Your task to perform on an android device: toggle improve location accuracy Image 0: 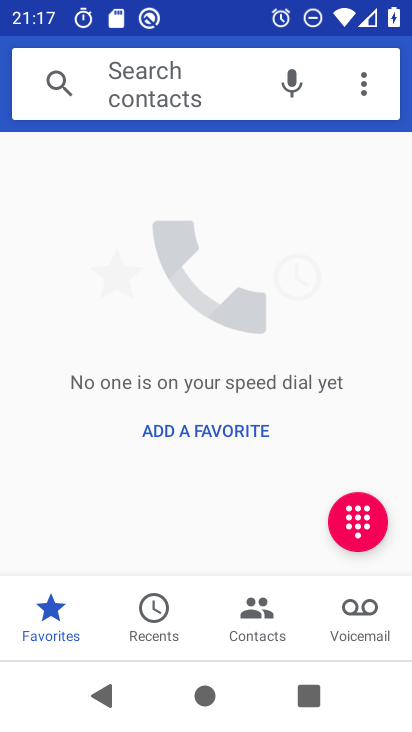
Step 0: press home button
Your task to perform on an android device: toggle improve location accuracy Image 1: 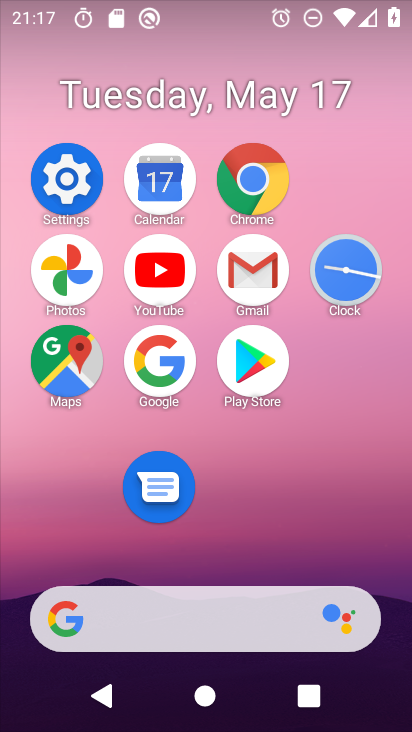
Step 1: click (60, 192)
Your task to perform on an android device: toggle improve location accuracy Image 2: 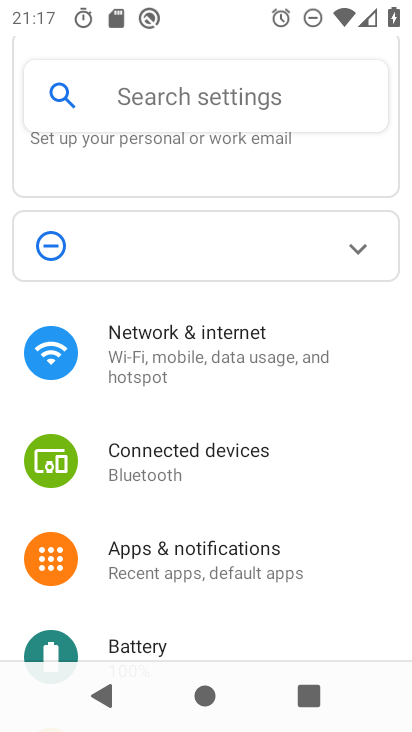
Step 2: drag from (208, 595) to (255, 252)
Your task to perform on an android device: toggle improve location accuracy Image 3: 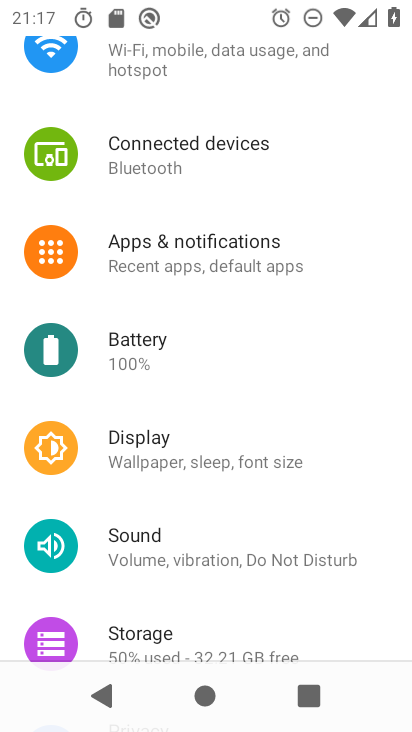
Step 3: drag from (225, 560) to (225, 255)
Your task to perform on an android device: toggle improve location accuracy Image 4: 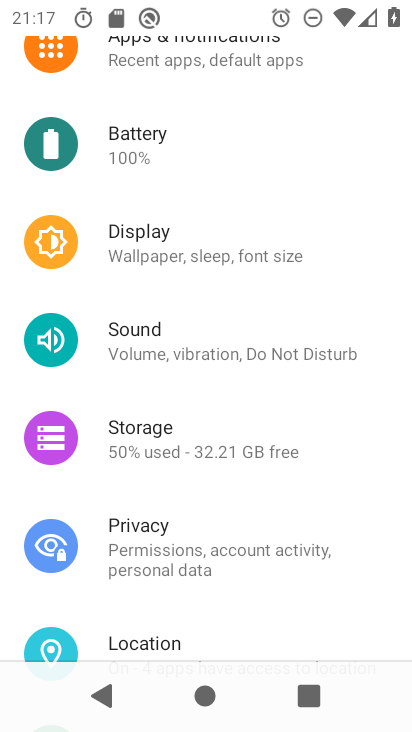
Step 4: drag from (222, 603) to (276, 259)
Your task to perform on an android device: toggle improve location accuracy Image 5: 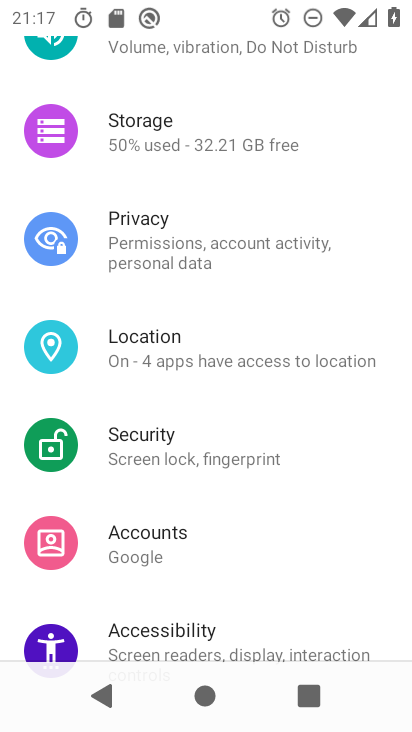
Step 5: click (216, 346)
Your task to perform on an android device: toggle improve location accuracy Image 6: 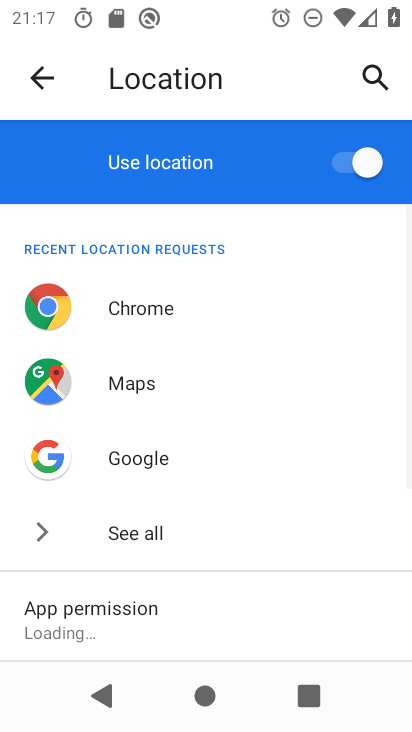
Step 6: drag from (204, 546) to (236, 155)
Your task to perform on an android device: toggle improve location accuracy Image 7: 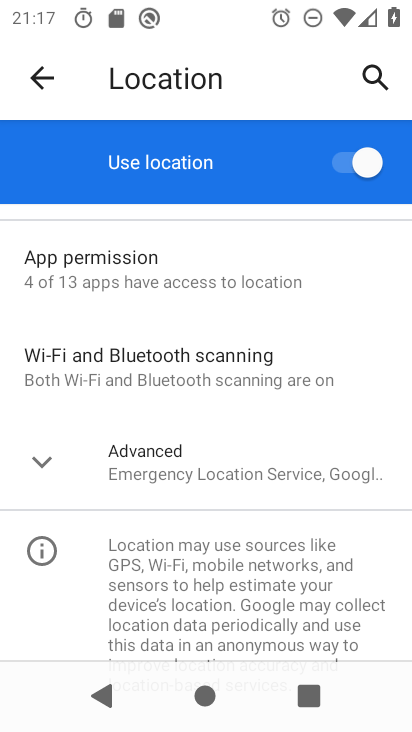
Step 7: click (174, 478)
Your task to perform on an android device: toggle improve location accuracy Image 8: 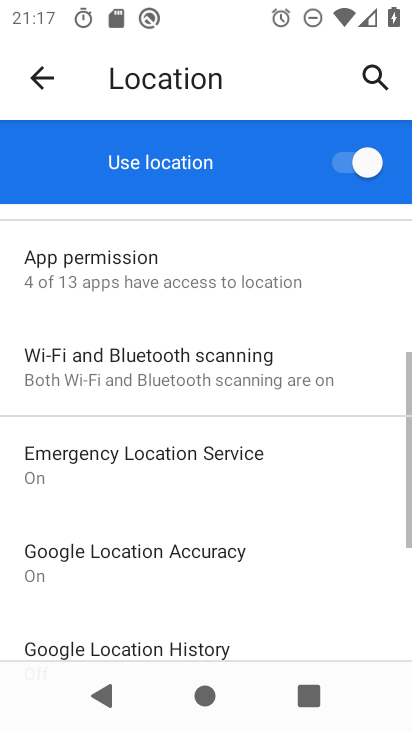
Step 8: drag from (174, 478) to (209, 183)
Your task to perform on an android device: toggle improve location accuracy Image 9: 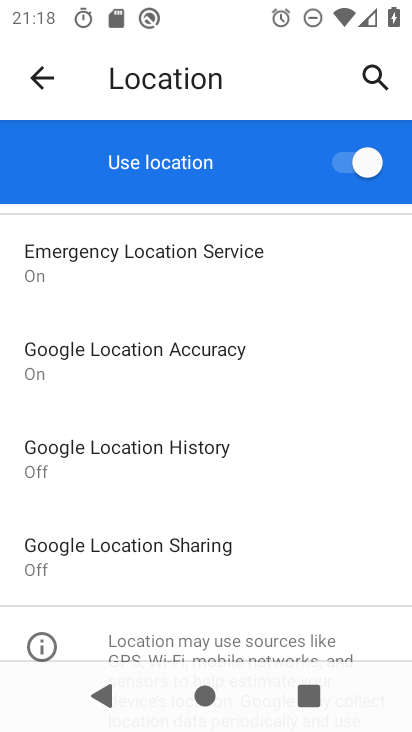
Step 9: click (193, 368)
Your task to perform on an android device: toggle improve location accuracy Image 10: 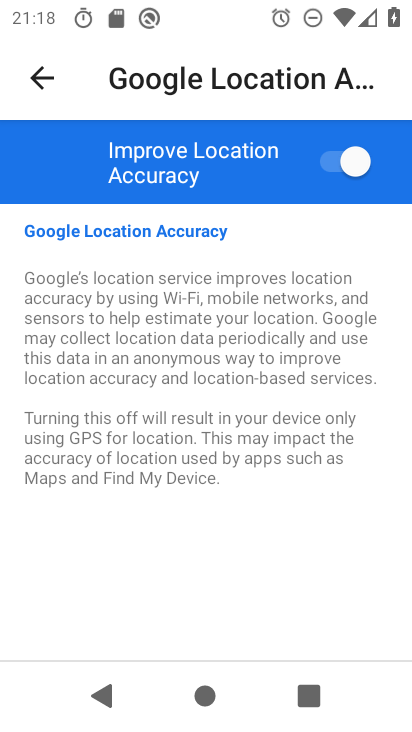
Step 10: task complete